Your task to perform on an android device: Open calendar and show me the first week of next month Image 0: 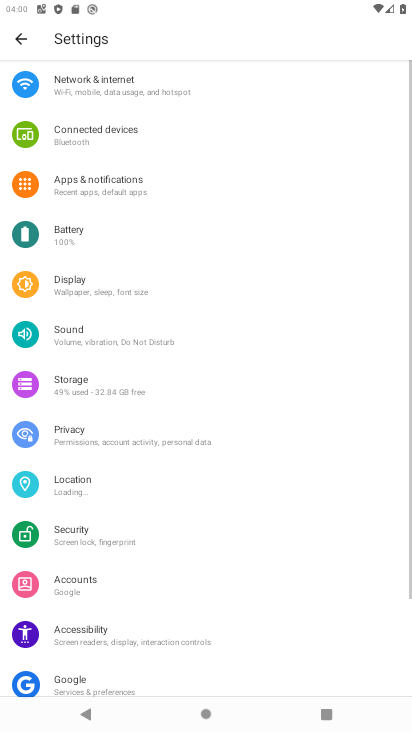
Step 0: press home button
Your task to perform on an android device: Open calendar and show me the first week of next month Image 1: 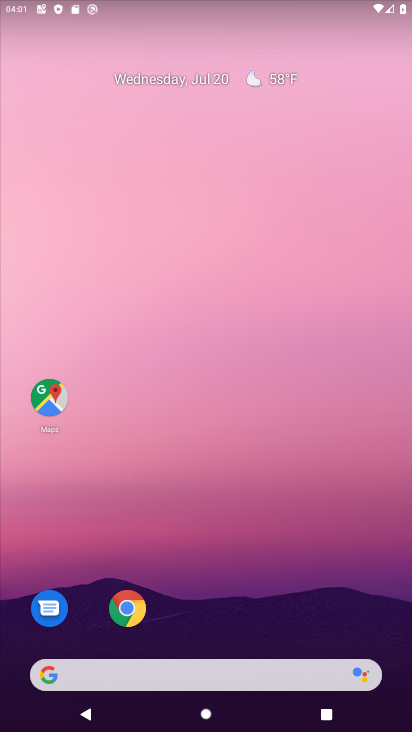
Step 1: drag from (219, 607) to (212, 108)
Your task to perform on an android device: Open calendar and show me the first week of next month Image 2: 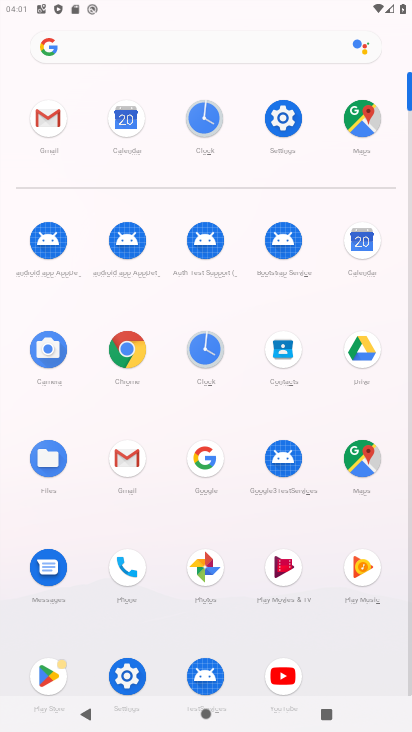
Step 2: click (139, 135)
Your task to perform on an android device: Open calendar and show me the first week of next month Image 3: 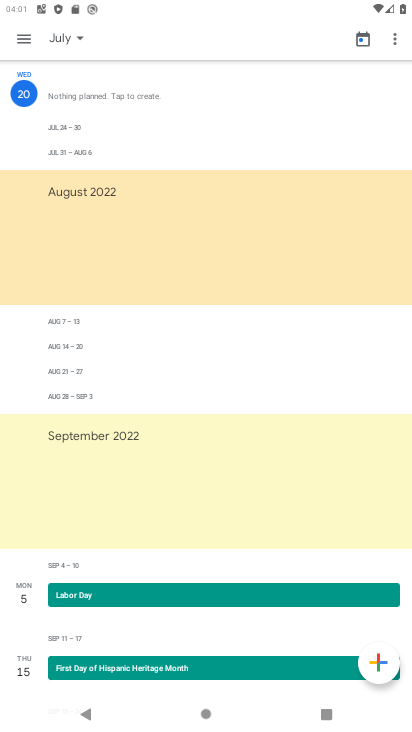
Step 3: task complete